Your task to perform on an android device: turn pop-ups off in chrome Image 0: 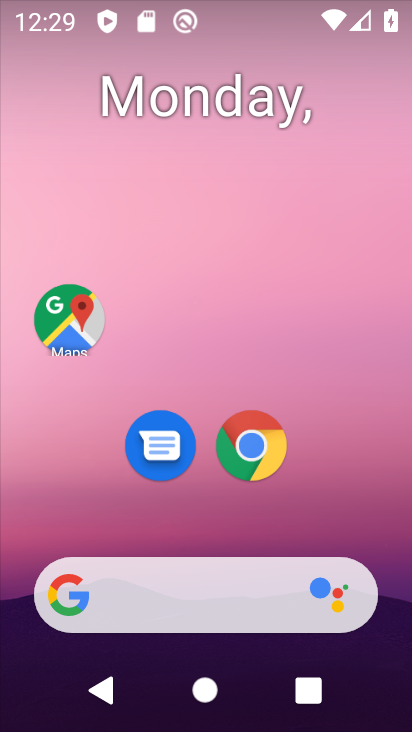
Step 0: drag from (289, 591) to (203, 58)
Your task to perform on an android device: turn pop-ups off in chrome Image 1: 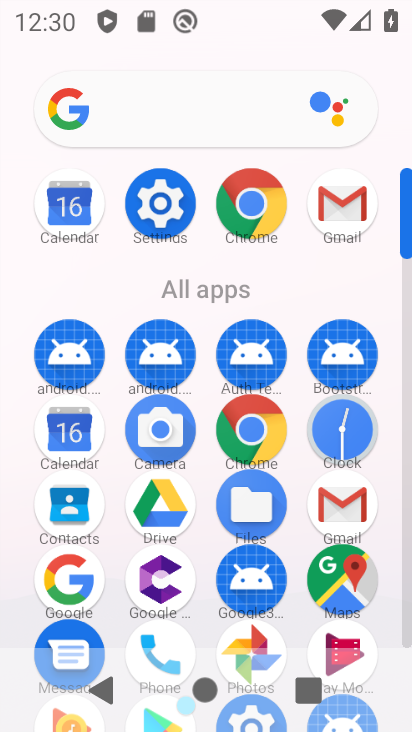
Step 1: click (242, 211)
Your task to perform on an android device: turn pop-ups off in chrome Image 2: 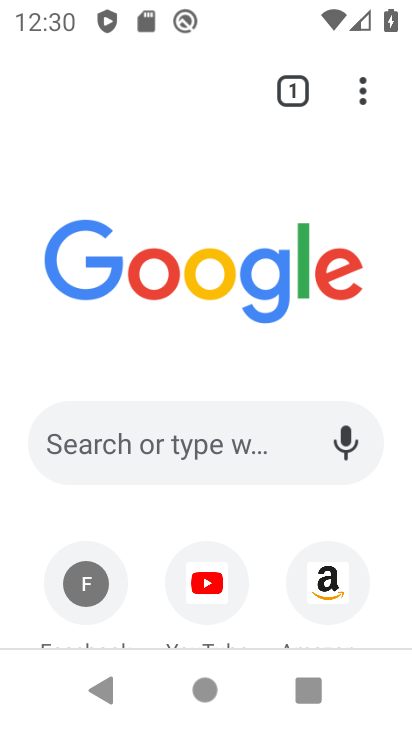
Step 2: click (359, 96)
Your task to perform on an android device: turn pop-ups off in chrome Image 3: 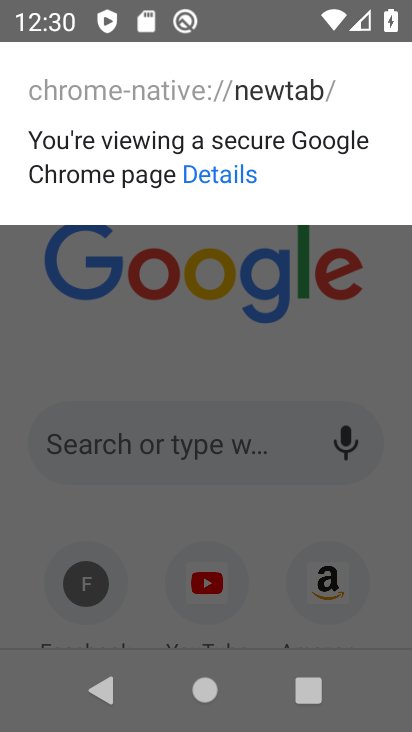
Step 3: click (340, 339)
Your task to perform on an android device: turn pop-ups off in chrome Image 4: 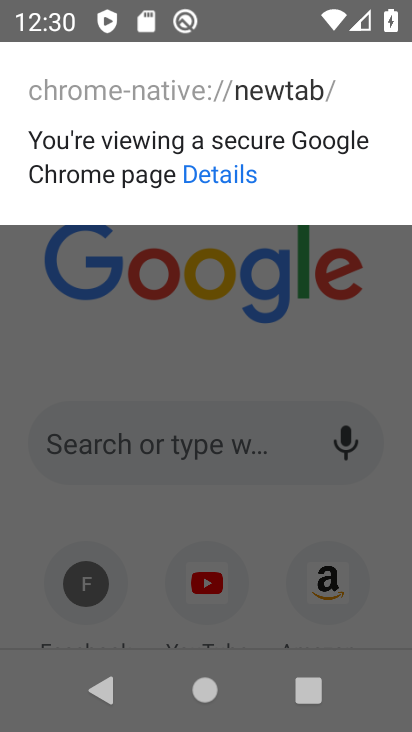
Step 4: click (330, 332)
Your task to perform on an android device: turn pop-ups off in chrome Image 5: 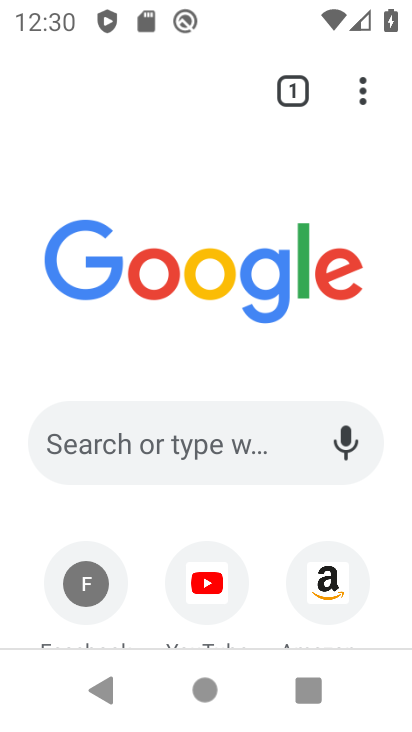
Step 5: drag from (360, 89) to (88, 468)
Your task to perform on an android device: turn pop-ups off in chrome Image 6: 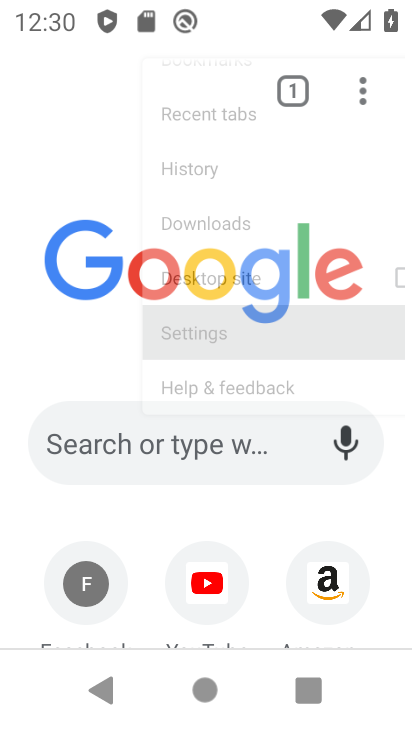
Step 6: click (88, 468)
Your task to perform on an android device: turn pop-ups off in chrome Image 7: 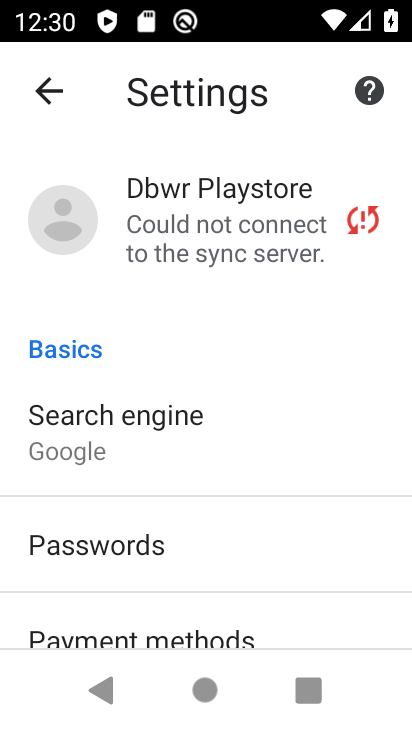
Step 7: drag from (200, 491) to (237, 124)
Your task to perform on an android device: turn pop-ups off in chrome Image 8: 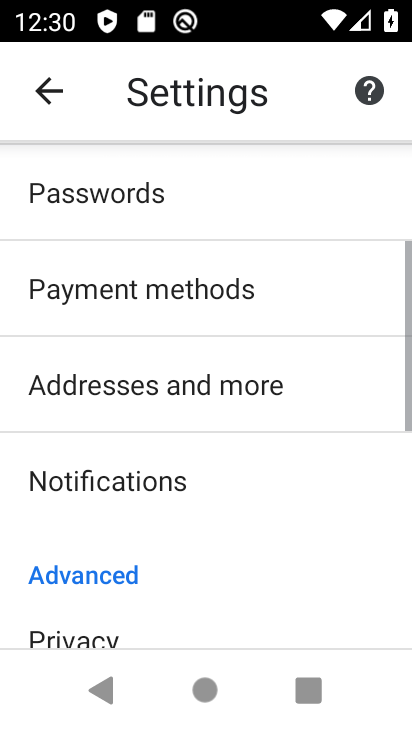
Step 8: drag from (230, 422) to (230, 160)
Your task to perform on an android device: turn pop-ups off in chrome Image 9: 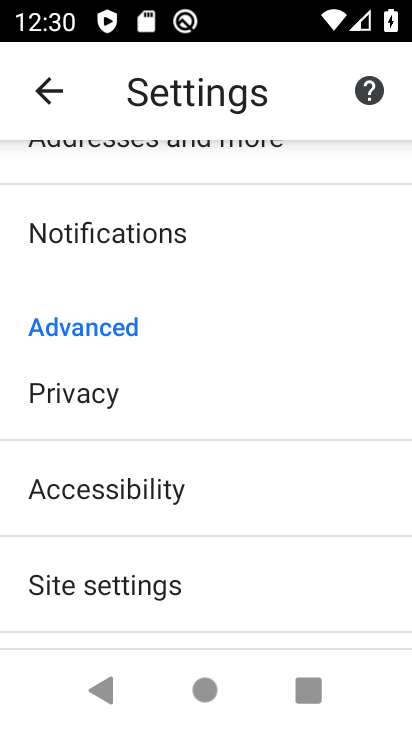
Step 9: drag from (231, 491) to (175, 187)
Your task to perform on an android device: turn pop-ups off in chrome Image 10: 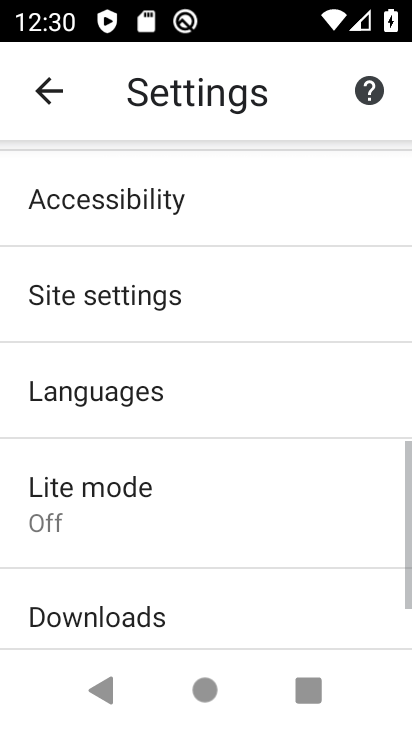
Step 10: drag from (207, 502) to (224, 142)
Your task to perform on an android device: turn pop-ups off in chrome Image 11: 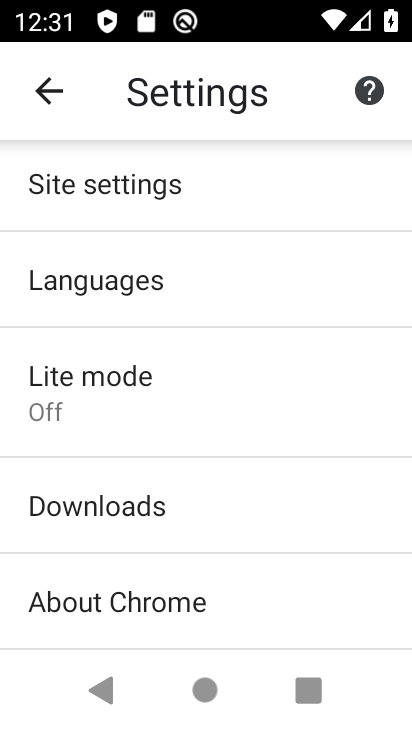
Step 11: drag from (113, 249) to (113, 201)
Your task to perform on an android device: turn pop-ups off in chrome Image 12: 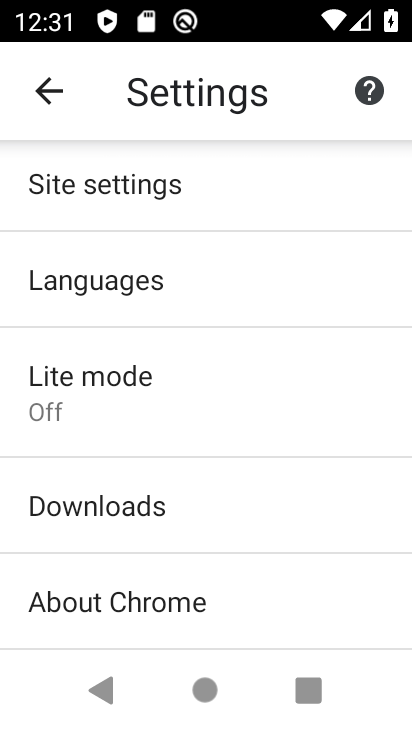
Step 12: click (75, 190)
Your task to perform on an android device: turn pop-ups off in chrome Image 13: 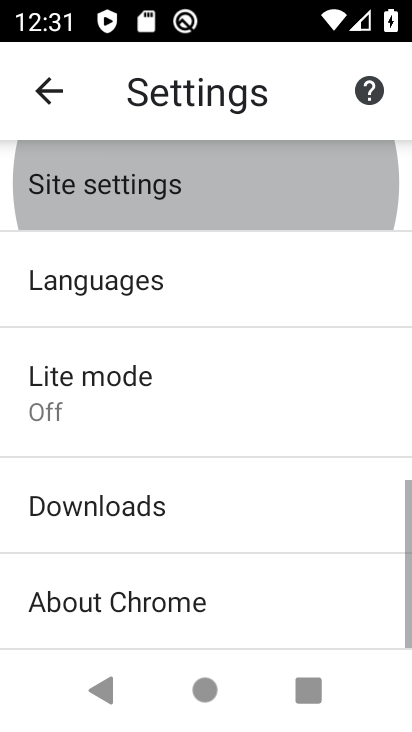
Step 13: click (86, 187)
Your task to perform on an android device: turn pop-ups off in chrome Image 14: 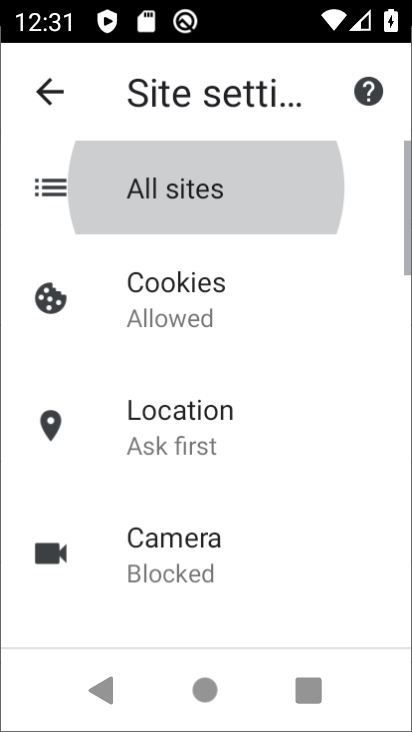
Step 14: click (93, 184)
Your task to perform on an android device: turn pop-ups off in chrome Image 15: 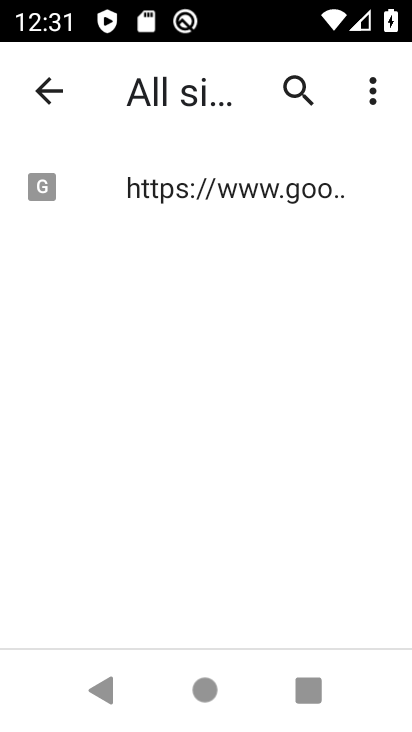
Step 15: click (29, 92)
Your task to perform on an android device: turn pop-ups off in chrome Image 16: 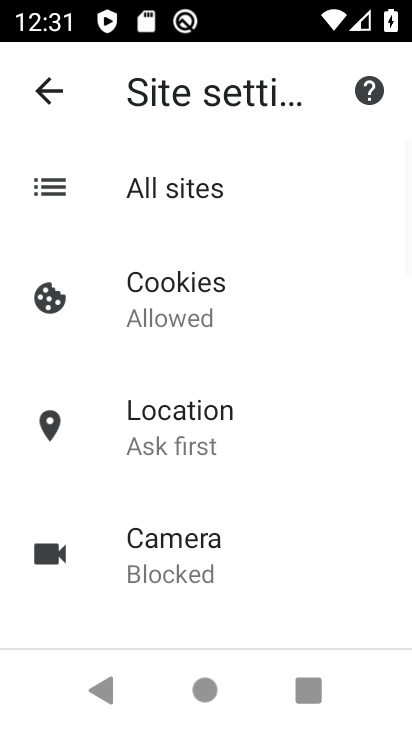
Step 16: drag from (174, 485) to (164, 135)
Your task to perform on an android device: turn pop-ups off in chrome Image 17: 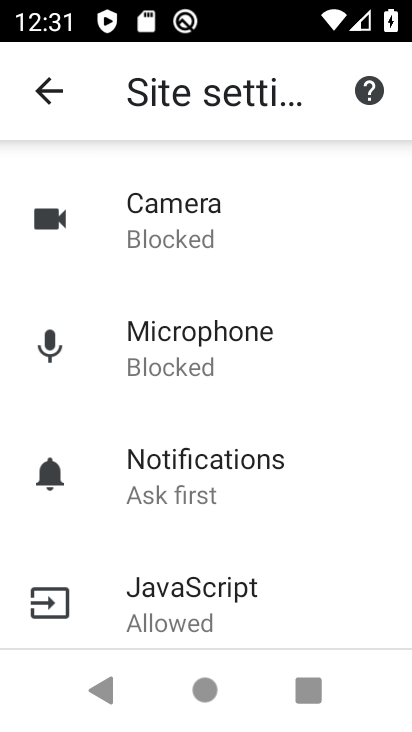
Step 17: drag from (175, 439) to (166, 103)
Your task to perform on an android device: turn pop-ups off in chrome Image 18: 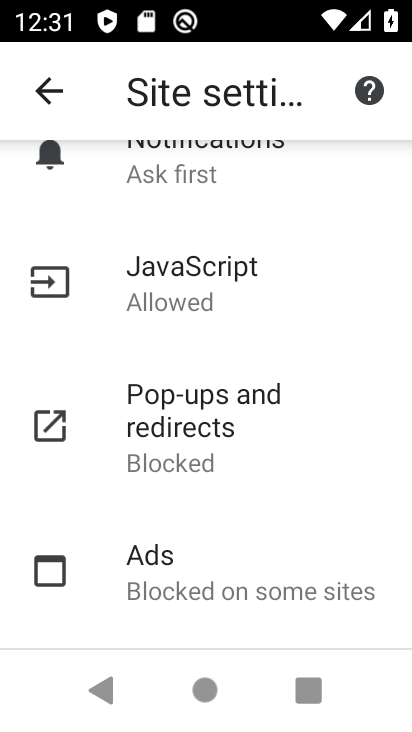
Step 18: click (170, 433)
Your task to perform on an android device: turn pop-ups off in chrome Image 19: 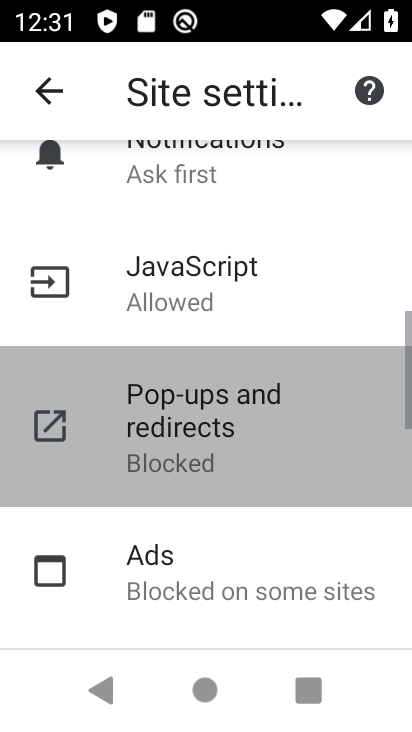
Step 19: click (172, 431)
Your task to perform on an android device: turn pop-ups off in chrome Image 20: 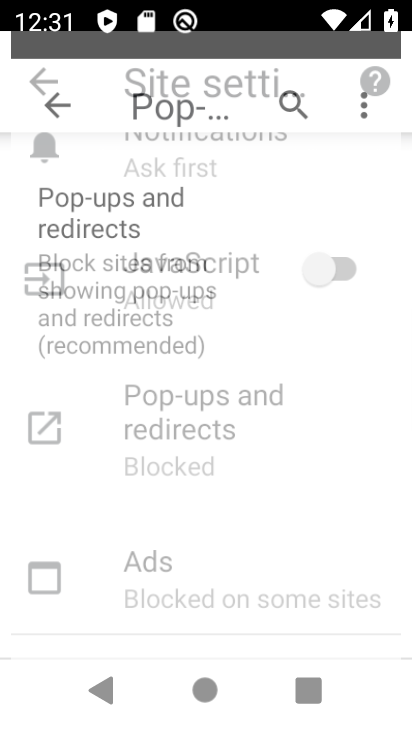
Step 20: click (173, 431)
Your task to perform on an android device: turn pop-ups off in chrome Image 21: 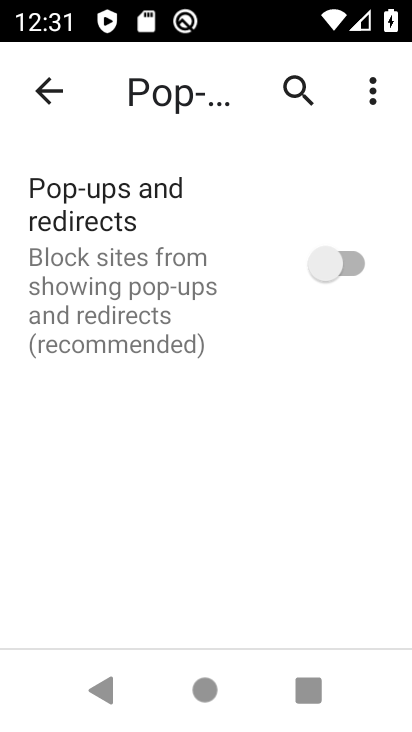
Step 21: click (331, 271)
Your task to perform on an android device: turn pop-ups off in chrome Image 22: 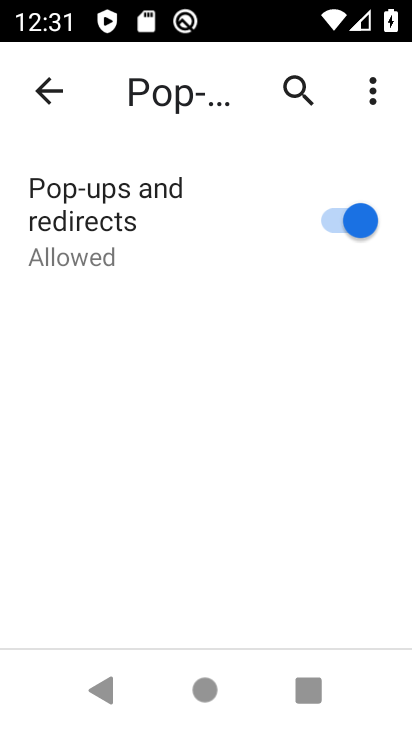
Step 22: task complete